Your task to perform on an android device: check google app version Image 0: 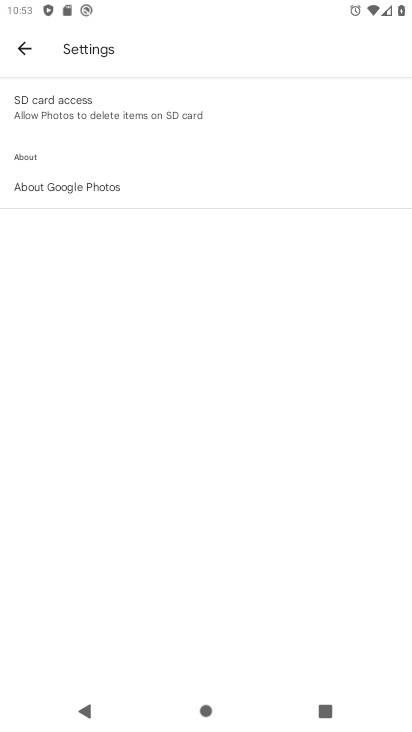
Step 0: press home button
Your task to perform on an android device: check google app version Image 1: 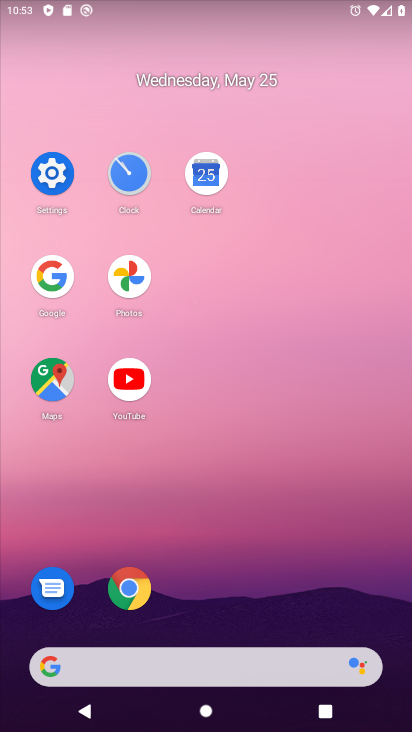
Step 1: click (37, 278)
Your task to perform on an android device: check google app version Image 2: 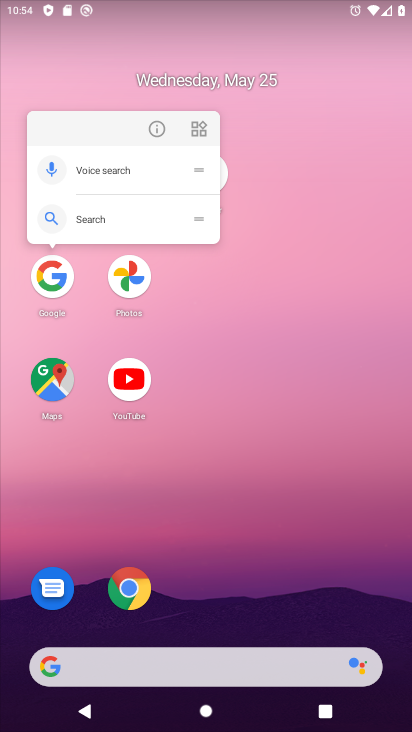
Step 2: click (151, 126)
Your task to perform on an android device: check google app version Image 3: 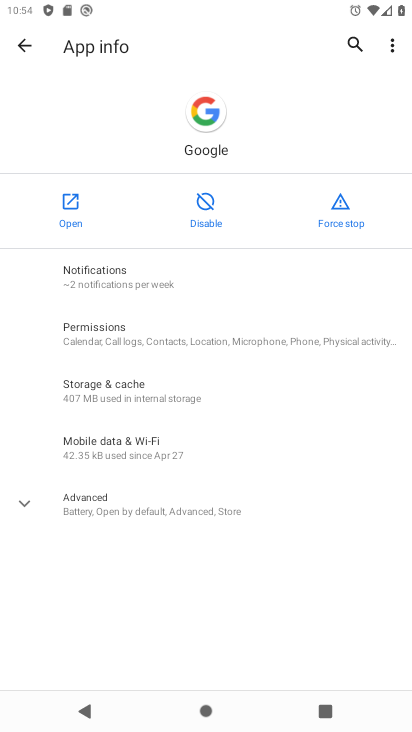
Step 3: click (144, 513)
Your task to perform on an android device: check google app version Image 4: 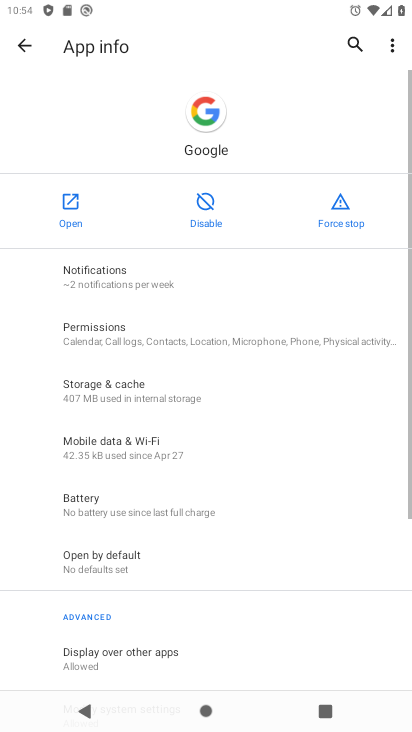
Step 4: task complete